Your task to perform on an android device: When is my next appointment? Image 0: 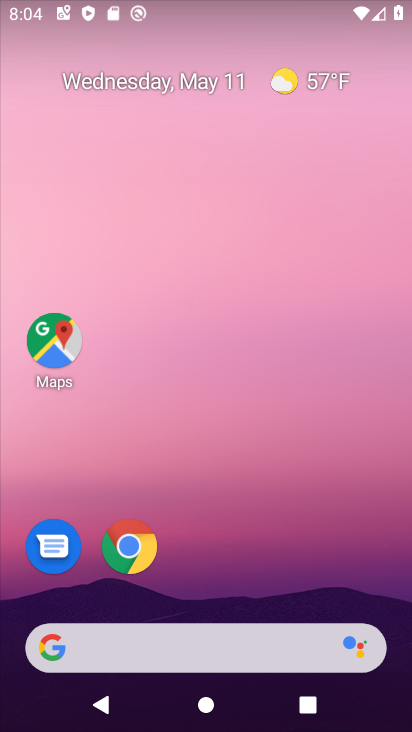
Step 0: drag from (206, 583) to (259, 150)
Your task to perform on an android device: When is my next appointment? Image 1: 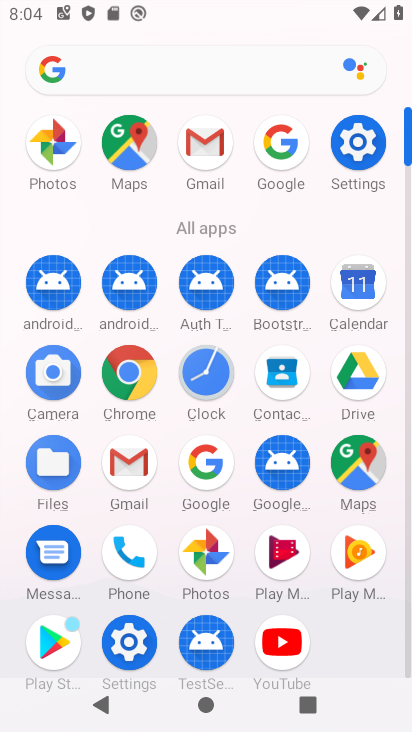
Step 1: drag from (237, 521) to (277, 218)
Your task to perform on an android device: When is my next appointment? Image 2: 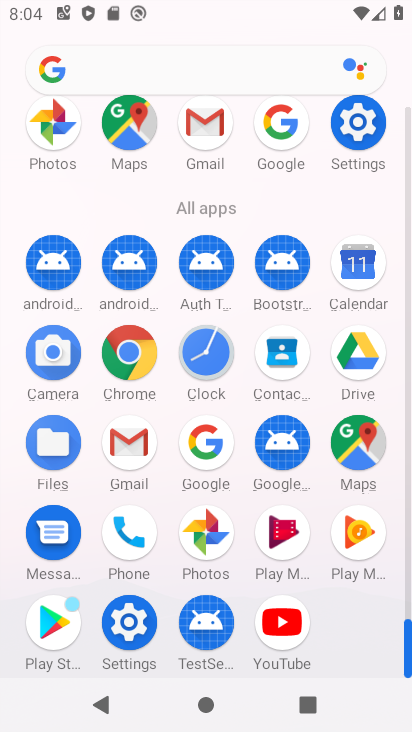
Step 2: drag from (246, 502) to (261, 279)
Your task to perform on an android device: When is my next appointment? Image 3: 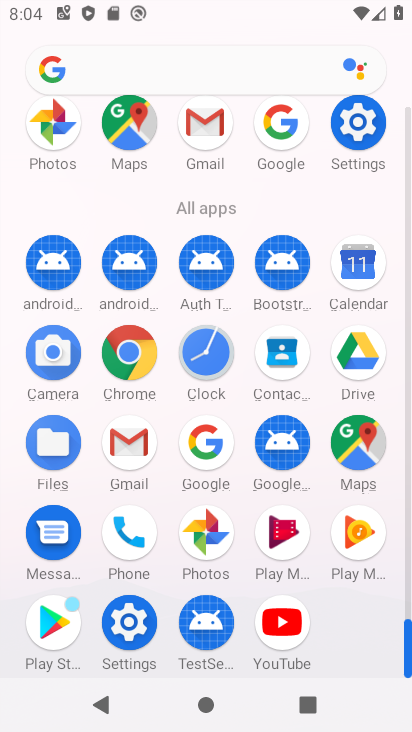
Step 3: click (350, 269)
Your task to perform on an android device: When is my next appointment? Image 4: 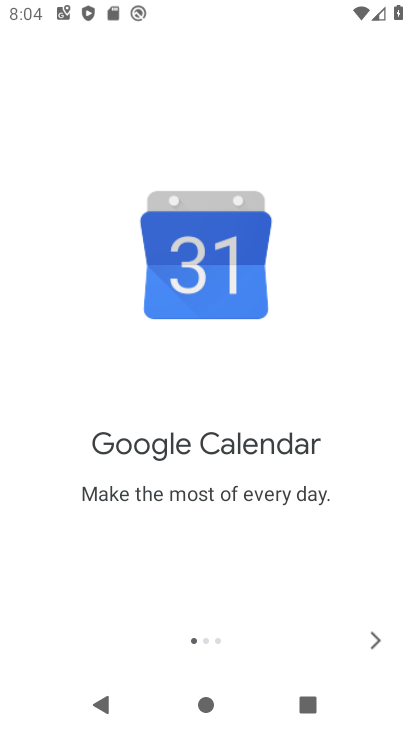
Step 4: click (371, 639)
Your task to perform on an android device: When is my next appointment? Image 5: 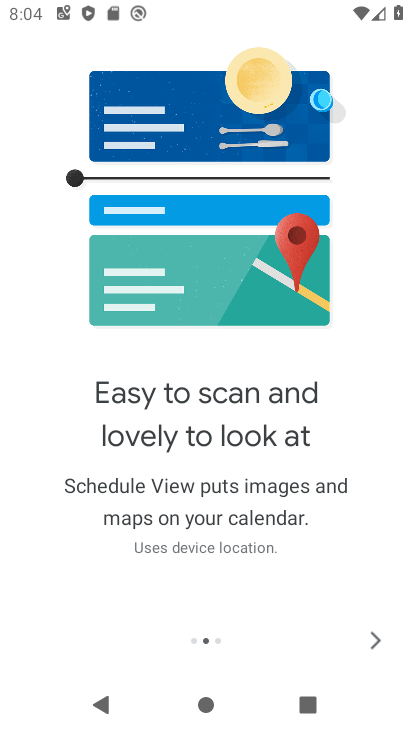
Step 5: click (372, 638)
Your task to perform on an android device: When is my next appointment? Image 6: 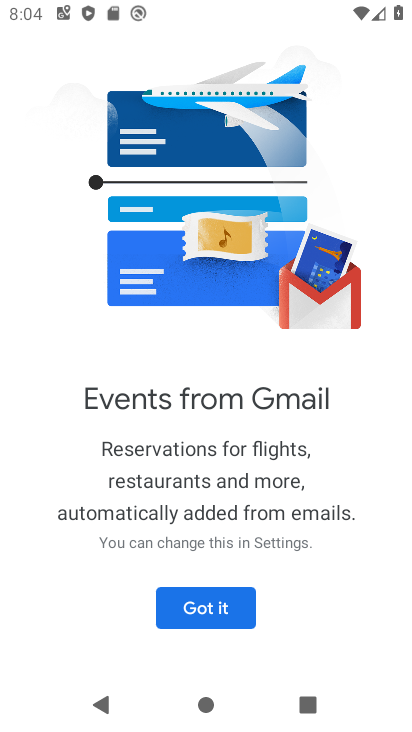
Step 6: click (372, 638)
Your task to perform on an android device: When is my next appointment? Image 7: 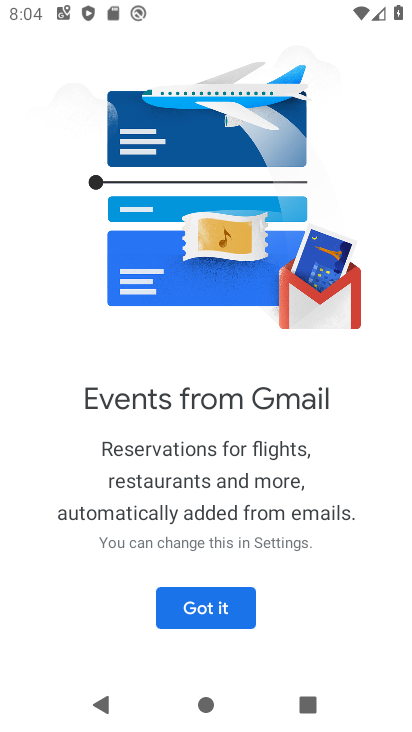
Step 7: click (225, 619)
Your task to perform on an android device: When is my next appointment? Image 8: 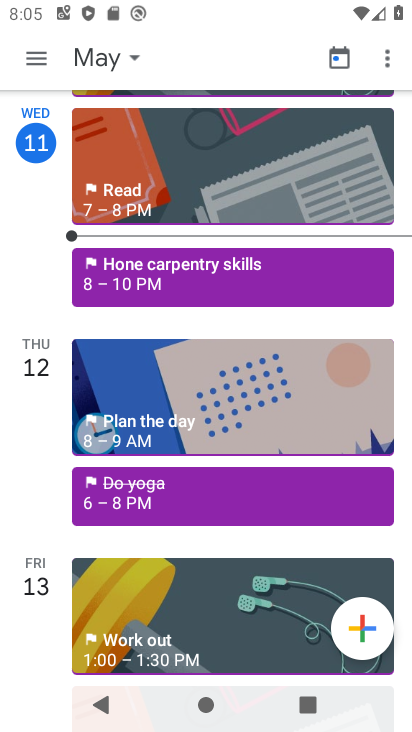
Step 8: drag from (174, 210) to (184, 480)
Your task to perform on an android device: When is my next appointment? Image 9: 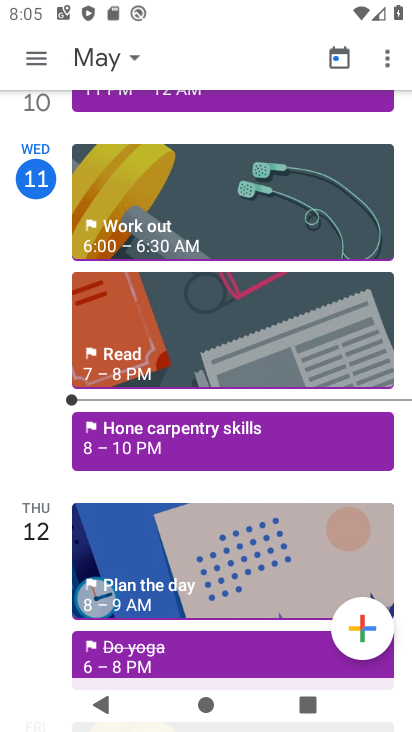
Step 9: drag from (225, 119) to (225, 282)
Your task to perform on an android device: When is my next appointment? Image 10: 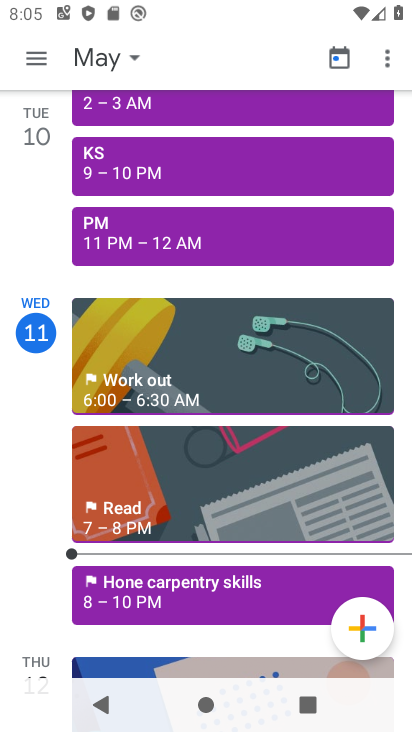
Step 10: drag from (243, 122) to (271, 332)
Your task to perform on an android device: When is my next appointment? Image 11: 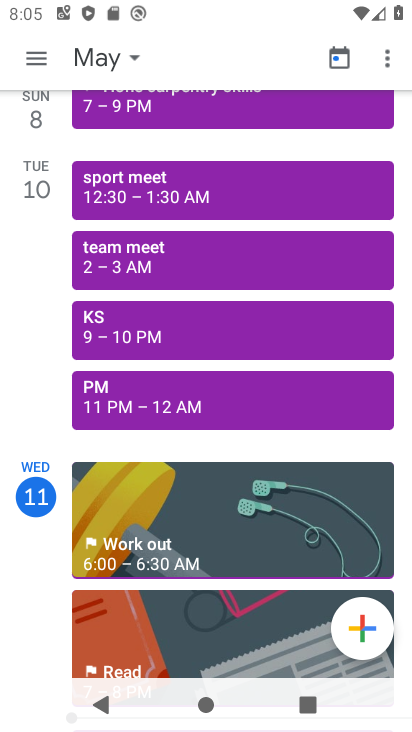
Step 11: drag from (278, 133) to (271, 239)
Your task to perform on an android device: When is my next appointment? Image 12: 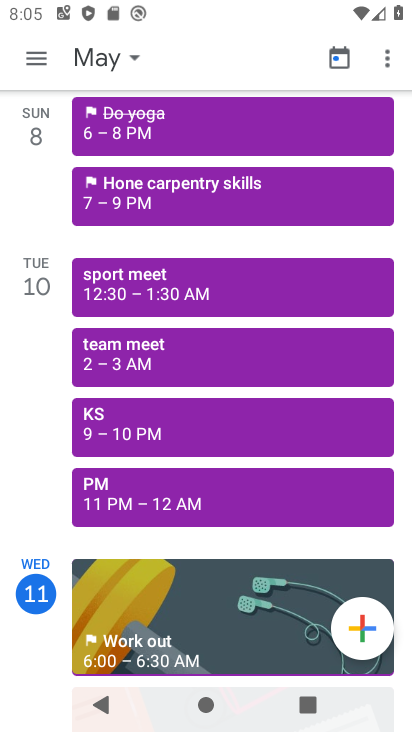
Step 12: click (204, 352)
Your task to perform on an android device: When is my next appointment? Image 13: 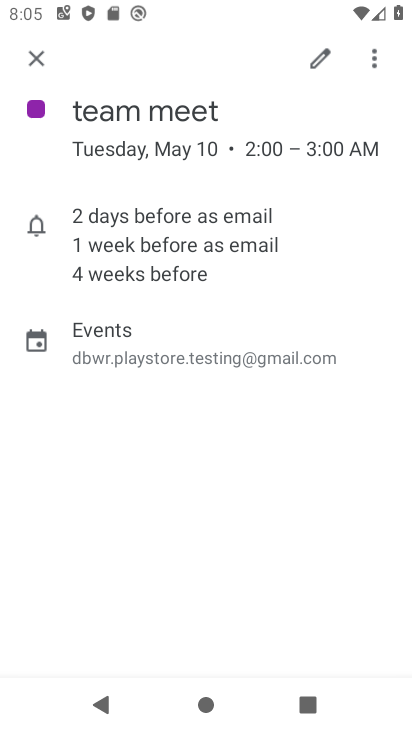
Step 13: task complete